Your task to perform on an android device: toggle javascript in the chrome app Image 0: 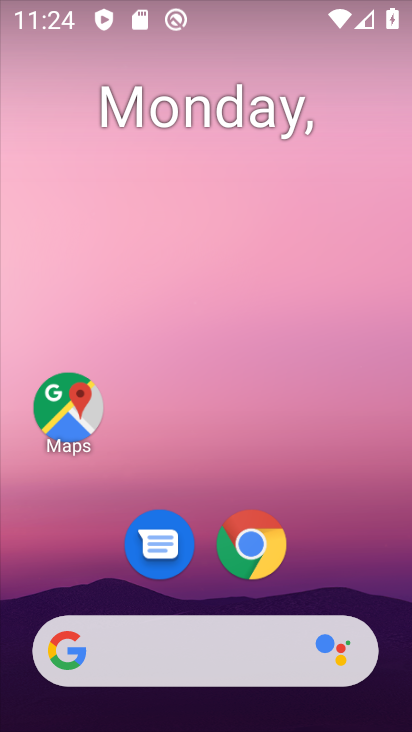
Step 0: drag from (241, 404) to (217, 28)
Your task to perform on an android device: toggle javascript in the chrome app Image 1: 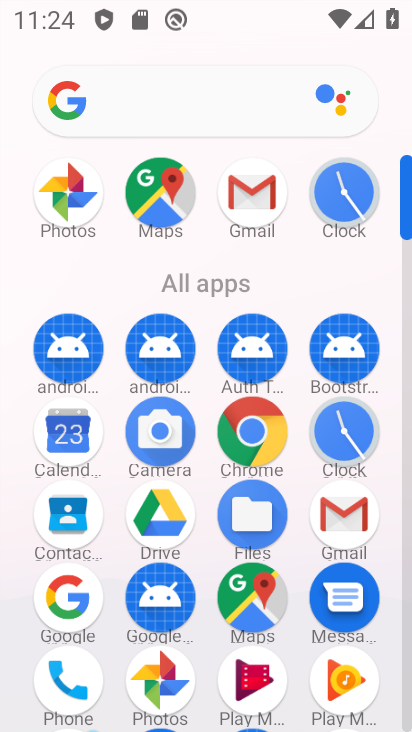
Step 1: click (258, 435)
Your task to perform on an android device: toggle javascript in the chrome app Image 2: 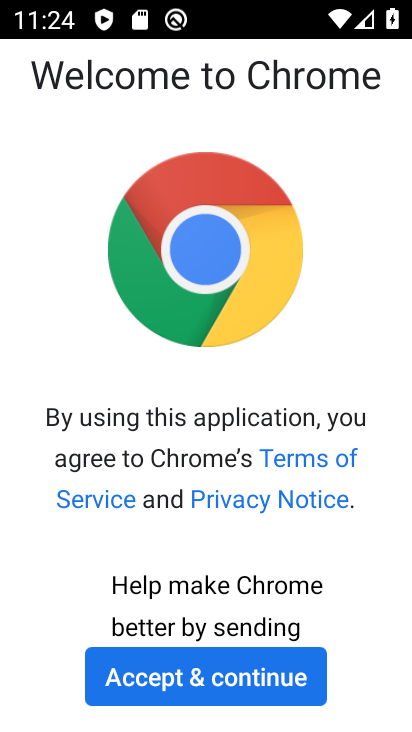
Step 2: click (175, 666)
Your task to perform on an android device: toggle javascript in the chrome app Image 3: 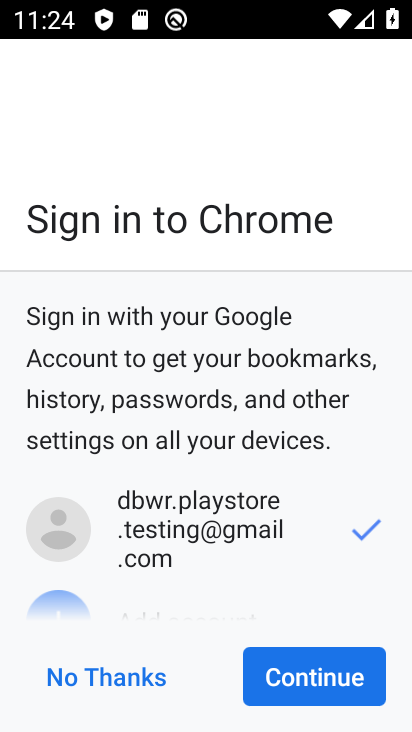
Step 3: click (312, 685)
Your task to perform on an android device: toggle javascript in the chrome app Image 4: 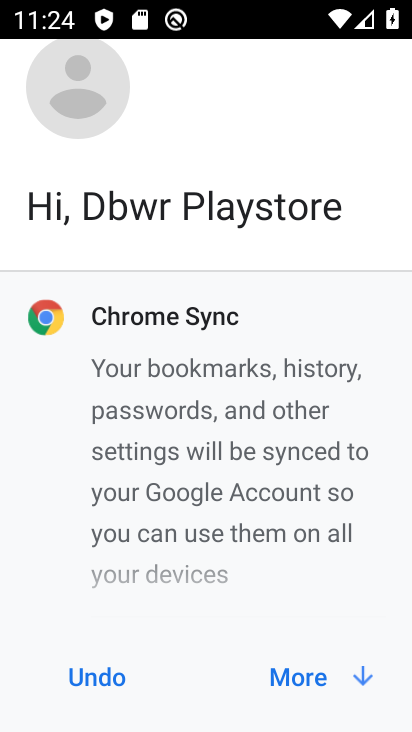
Step 4: click (312, 685)
Your task to perform on an android device: toggle javascript in the chrome app Image 5: 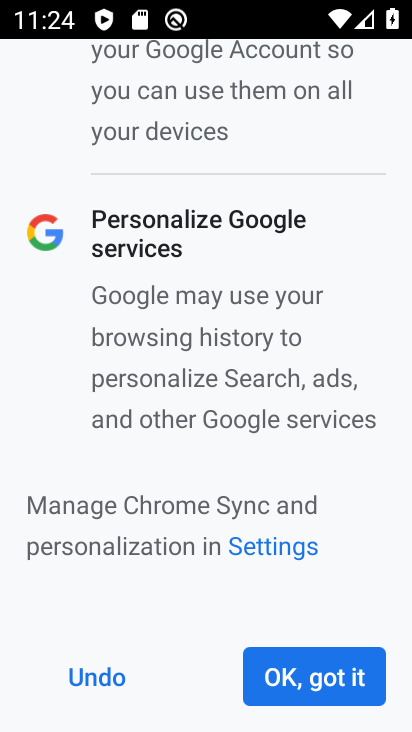
Step 5: click (312, 685)
Your task to perform on an android device: toggle javascript in the chrome app Image 6: 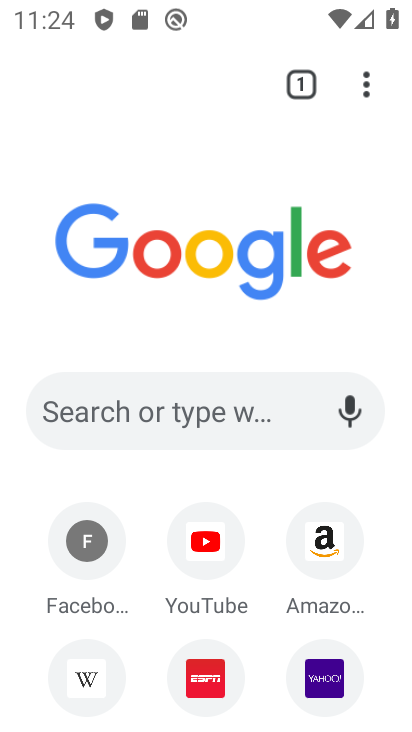
Step 6: click (362, 90)
Your task to perform on an android device: toggle javascript in the chrome app Image 7: 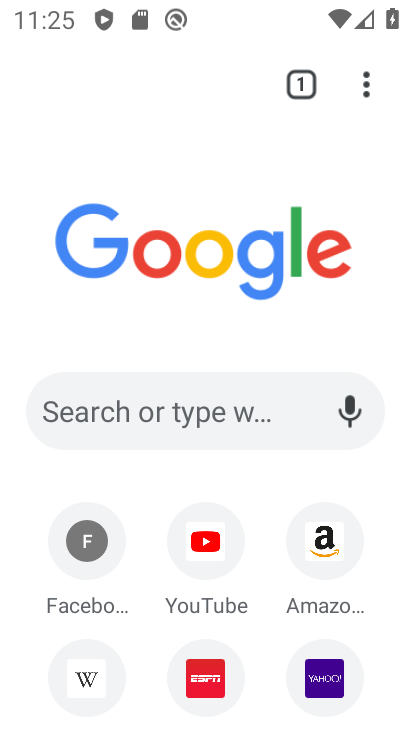
Step 7: click (360, 97)
Your task to perform on an android device: toggle javascript in the chrome app Image 8: 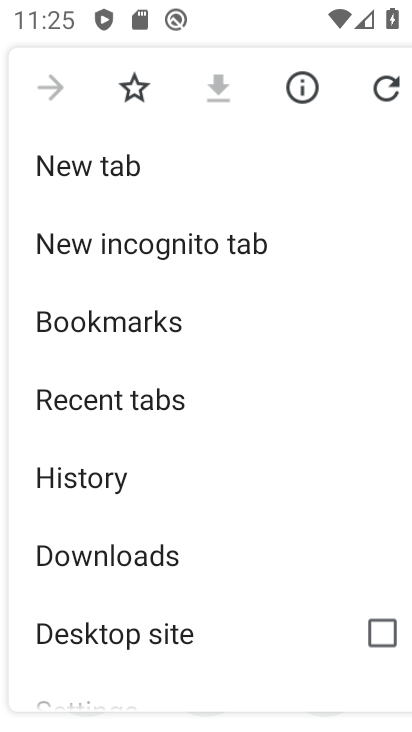
Step 8: drag from (240, 545) to (204, 229)
Your task to perform on an android device: toggle javascript in the chrome app Image 9: 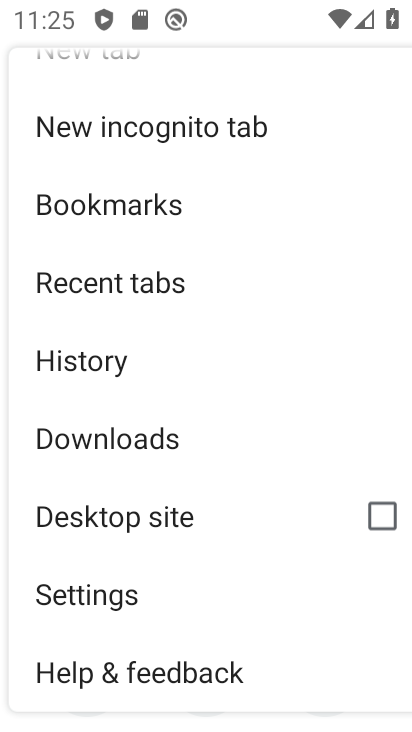
Step 9: click (219, 595)
Your task to perform on an android device: toggle javascript in the chrome app Image 10: 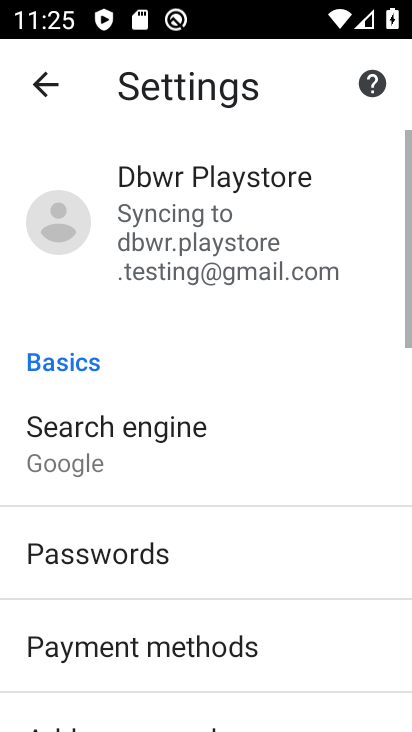
Step 10: drag from (233, 587) to (199, 241)
Your task to perform on an android device: toggle javascript in the chrome app Image 11: 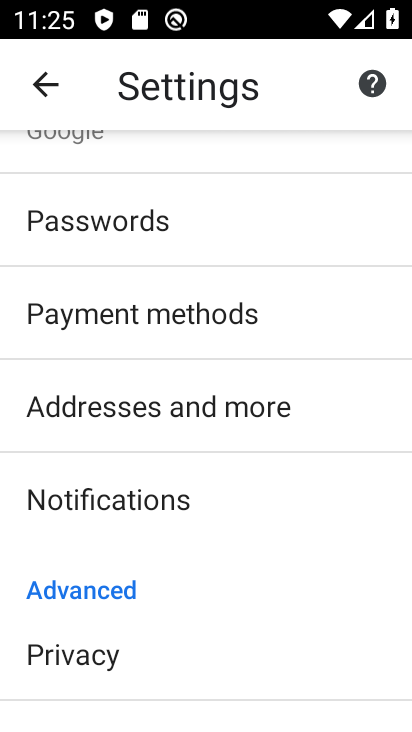
Step 11: drag from (275, 561) to (247, 327)
Your task to perform on an android device: toggle javascript in the chrome app Image 12: 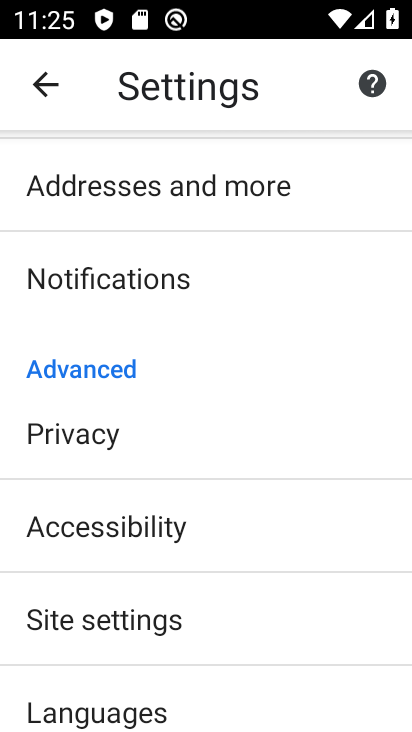
Step 12: click (129, 629)
Your task to perform on an android device: toggle javascript in the chrome app Image 13: 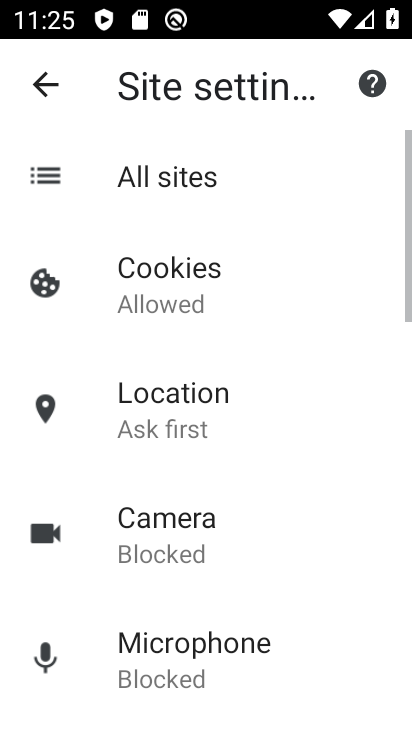
Step 13: drag from (114, 598) to (75, 341)
Your task to perform on an android device: toggle javascript in the chrome app Image 14: 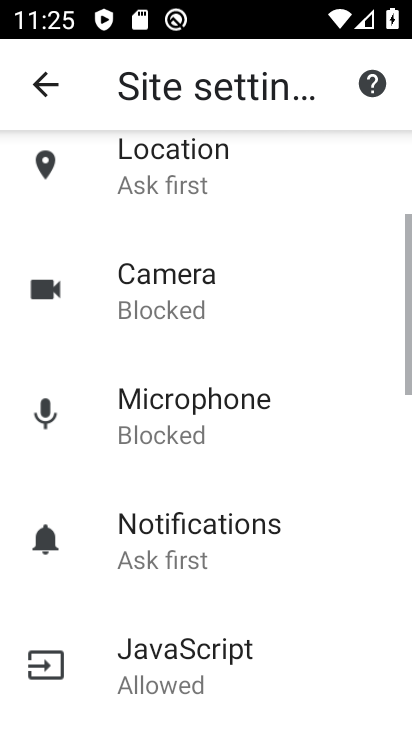
Step 14: drag from (164, 601) to (126, 368)
Your task to perform on an android device: toggle javascript in the chrome app Image 15: 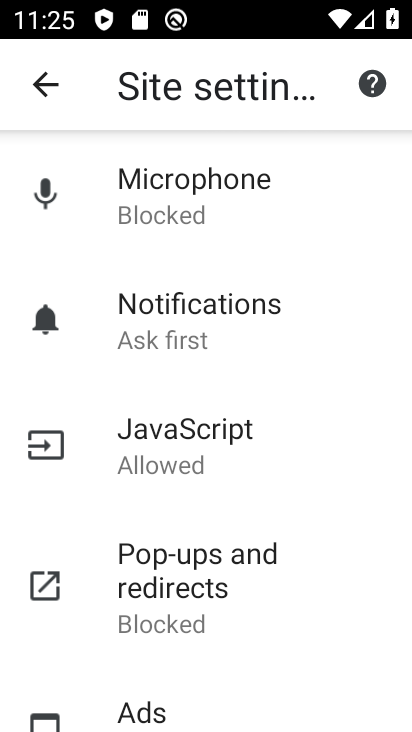
Step 15: click (169, 459)
Your task to perform on an android device: toggle javascript in the chrome app Image 16: 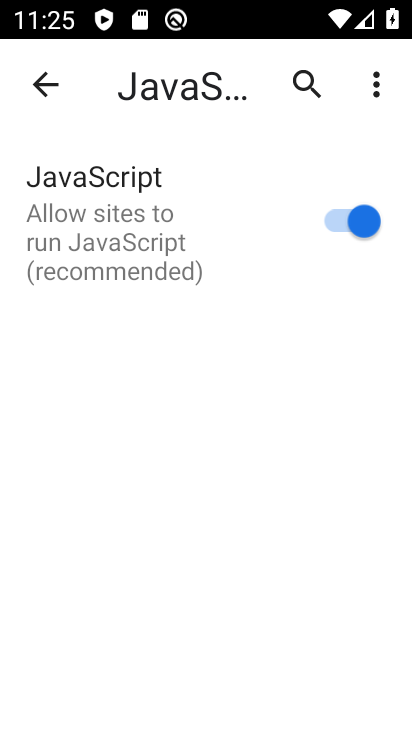
Step 16: click (323, 225)
Your task to perform on an android device: toggle javascript in the chrome app Image 17: 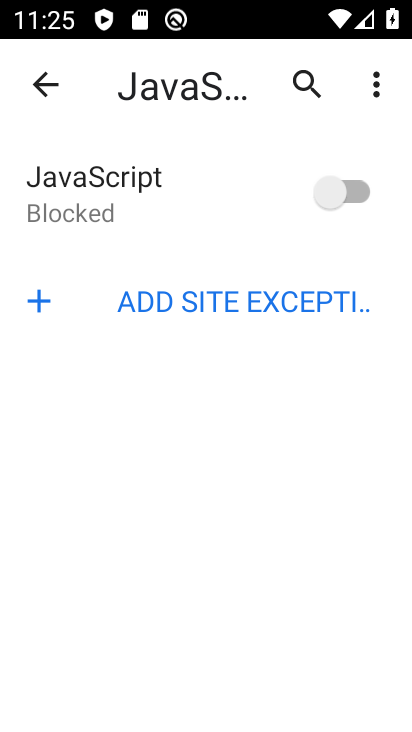
Step 17: task complete